Your task to perform on an android device: Go to notification settings Image 0: 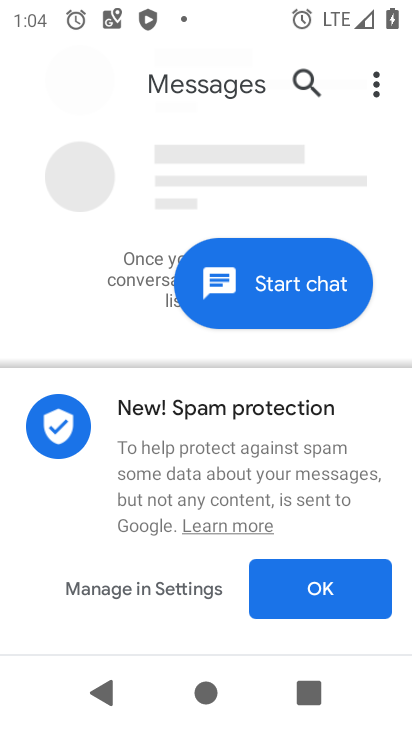
Step 0: press home button
Your task to perform on an android device: Go to notification settings Image 1: 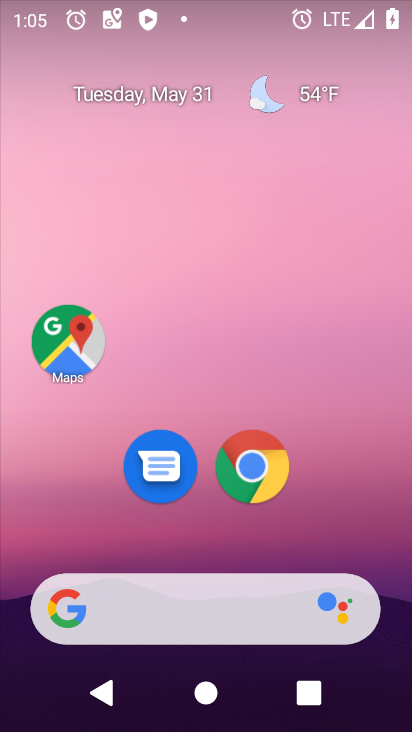
Step 1: drag from (205, 583) to (127, 0)
Your task to perform on an android device: Go to notification settings Image 2: 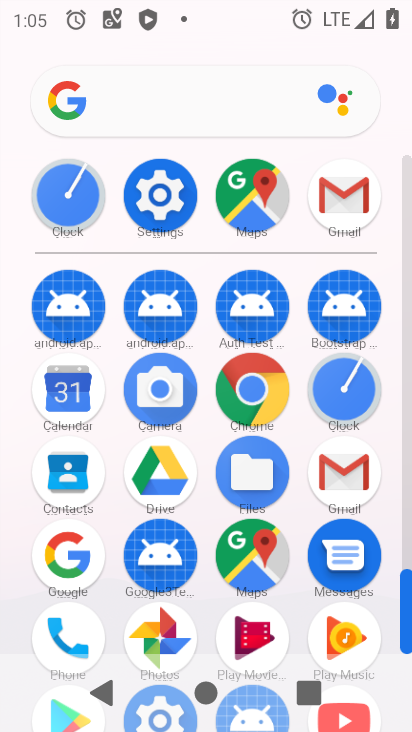
Step 2: click (158, 211)
Your task to perform on an android device: Go to notification settings Image 3: 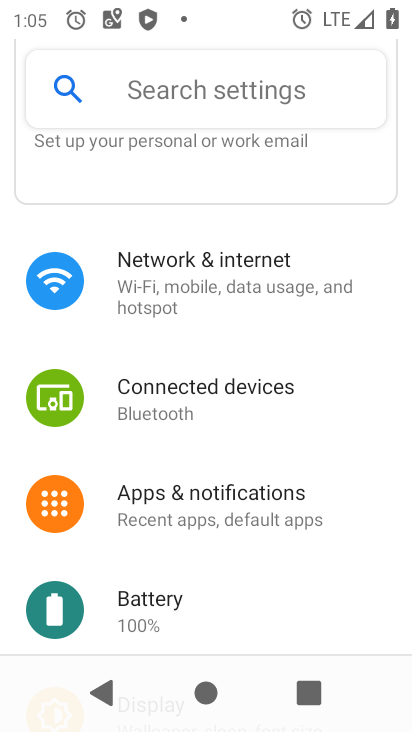
Step 3: click (206, 517)
Your task to perform on an android device: Go to notification settings Image 4: 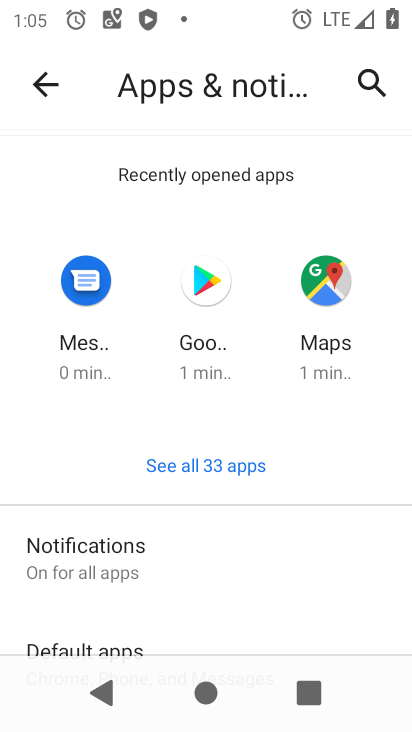
Step 4: task complete